Your task to perform on an android device: Search for sushi restaurants on Maps Image 0: 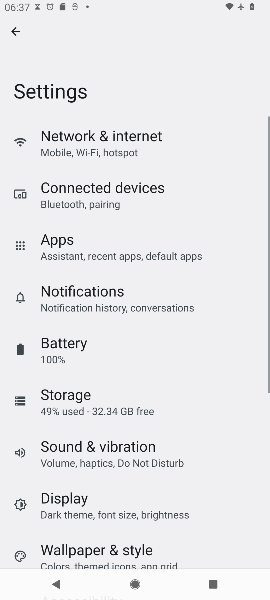
Step 0: press home button
Your task to perform on an android device: Search for sushi restaurants on Maps Image 1: 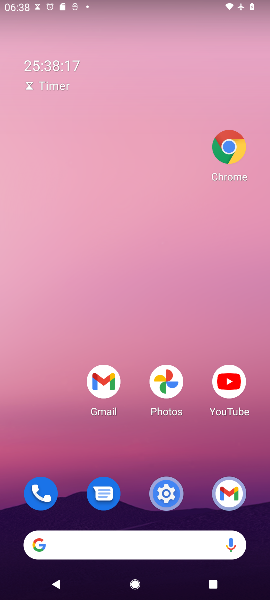
Step 1: drag from (143, 516) to (172, 89)
Your task to perform on an android device: Search for sushi restaurants on Maps Image 2: 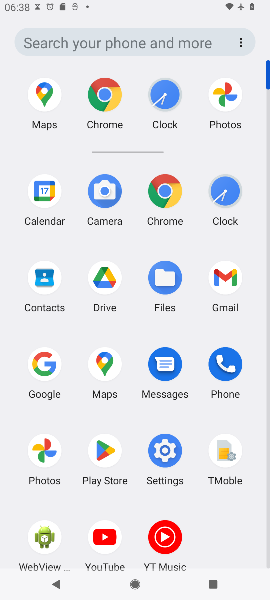
Step 2: click (42, 99)
Your task to perform on an android device: Search for sushi restaurants on Maps Image 3: 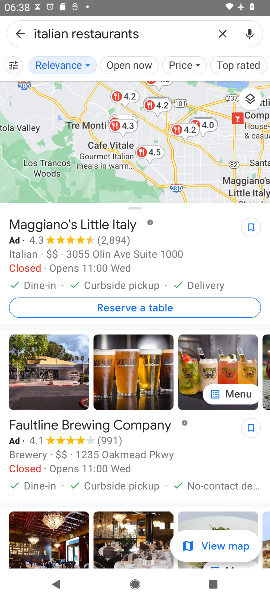
Step 3: click (226, 33)
Your task to perform on an android device: Search for sushi restaurants on Maps Image 4: 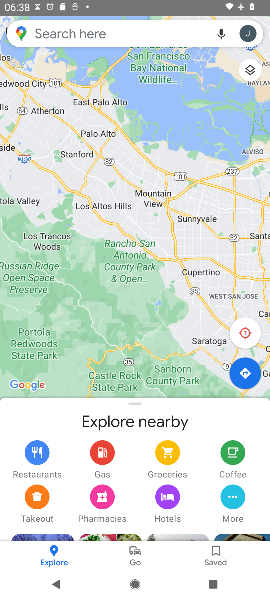
Step 4: click (120, 35)
Your task to perform on an android device: Search for sushi restaurants on Maps Image 5: 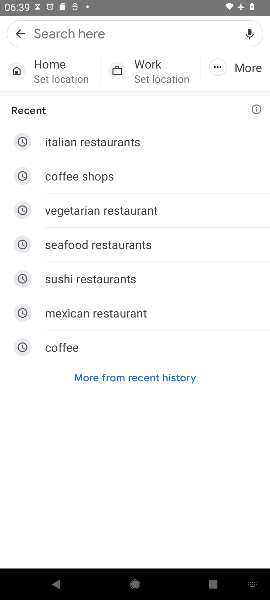
Step 5: click (95, 277)
Your task to perform on an android device: Search for sushi restaurants on Maps Image 6: 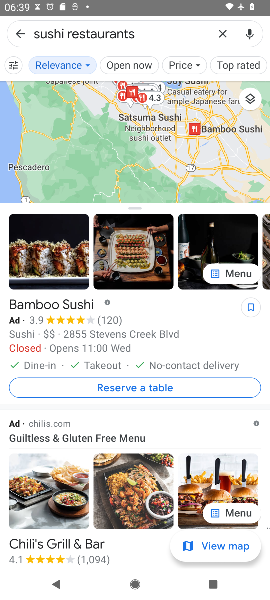
Step 6: task complete